Your task to perform on an android device: turn off airplane mode Image 0: 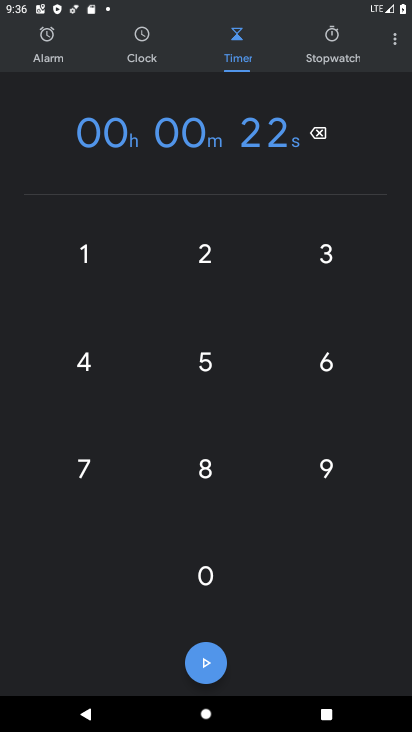
Step 0: press home button
Your task to perform on an android device: turn off airplane mode Image 1: 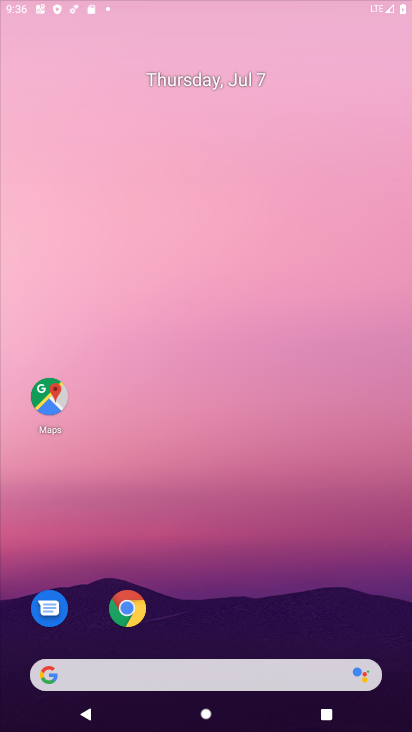
Step 1: drag from (241, 622) to (344, 15)
Your task to perform on an android device: turn off airplane mode Image 2: 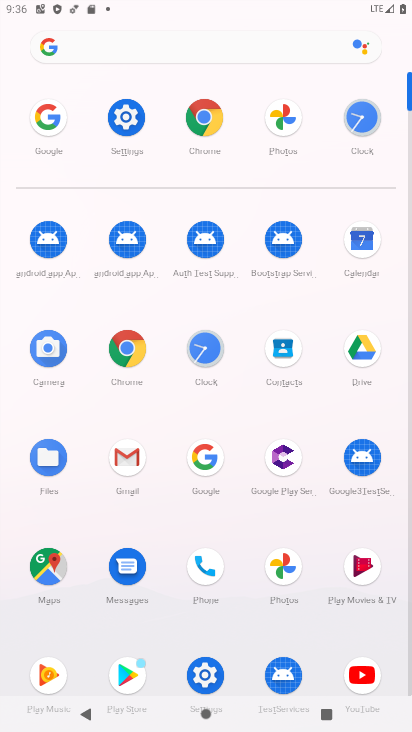
Step 2: click (129, 117)
Your task to perform on an android device: turn off airplane mode Image 3: 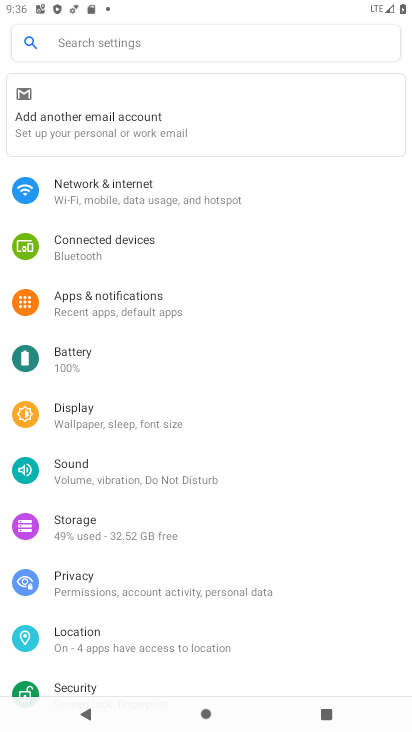
Step 3: click (138, 186)
Your task to perform on an android device: turn off airplane mode Image 4: 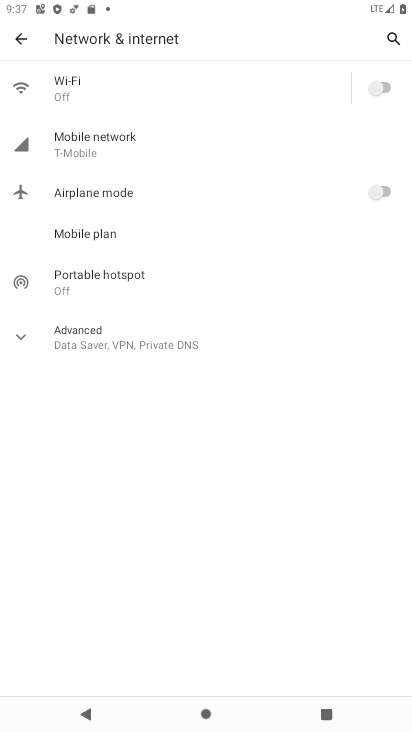
Step 4: task complete